Your task to perform on an android device: Do I have any events tomorrow? Image 0: 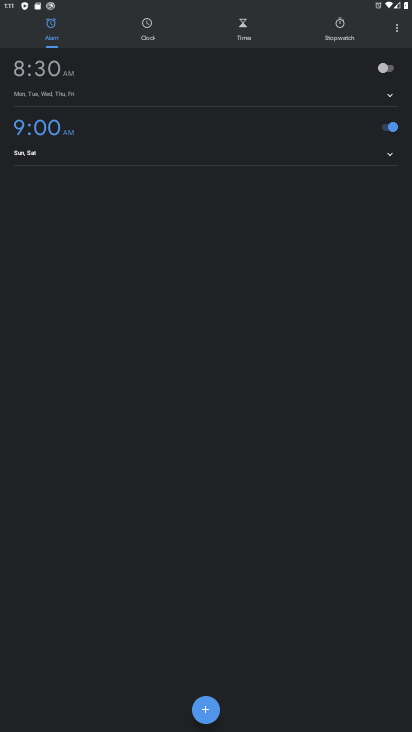
Step 0: press home button
Your task to perform on an android device: Do I have any events tomorrow? Image 1: 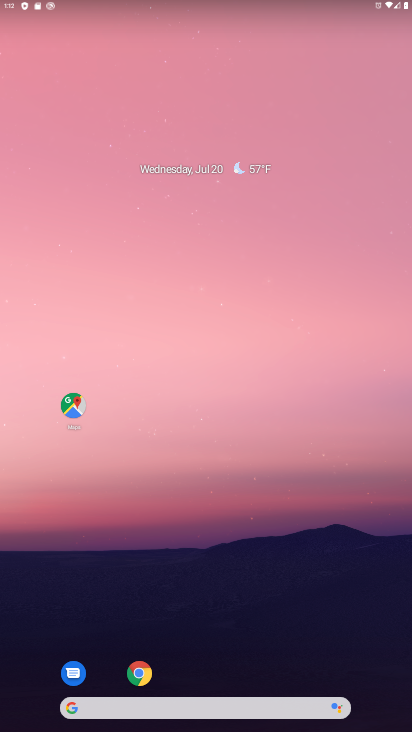
Step 1: drag from (220, 574) to (158, 15)
Your task to perform on an android device: Do I have any events tomorrow? Image 2: 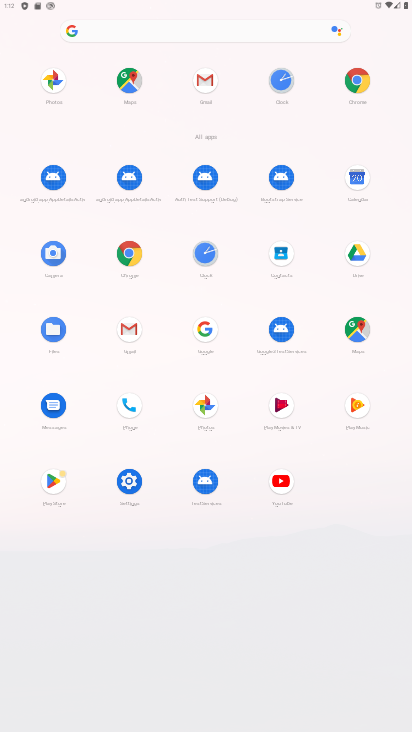
Step 2: click (363, 175)
Your task to perform on an android device: Do I have any events tomorrow? Image 3: 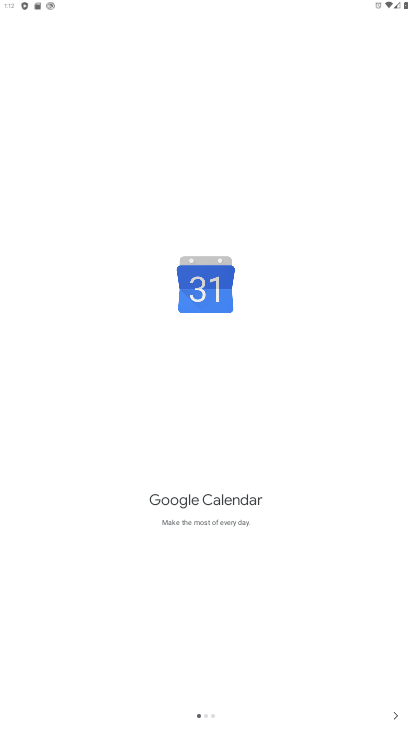
Step 3: click (396, 723)
Your task to perform on an android device: Do I have any events tomorrow? Image 4: 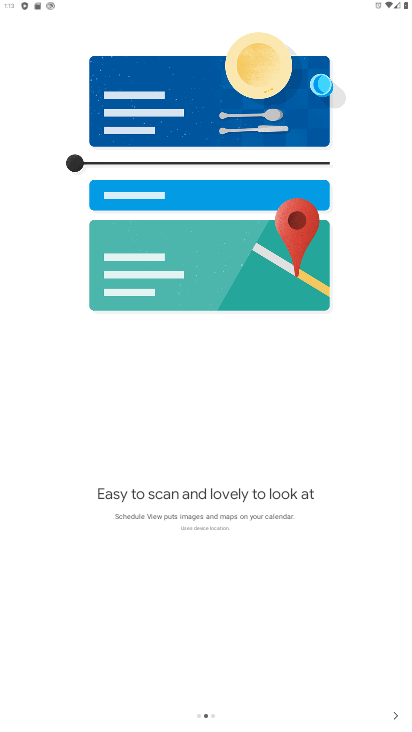
Step 4: click (396, 723)
Your task to perform on an android device: Do I have any events tomorrow? Image 5: 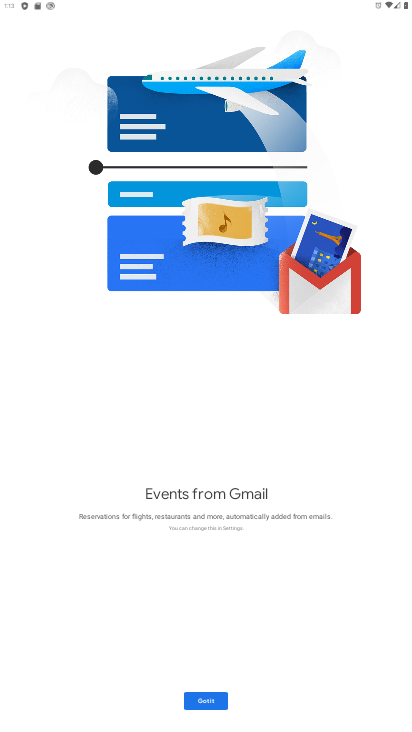
Step 5: click (396, 723)
Your task to perform on an android device: Do I have any events tomorrow? Image 6: 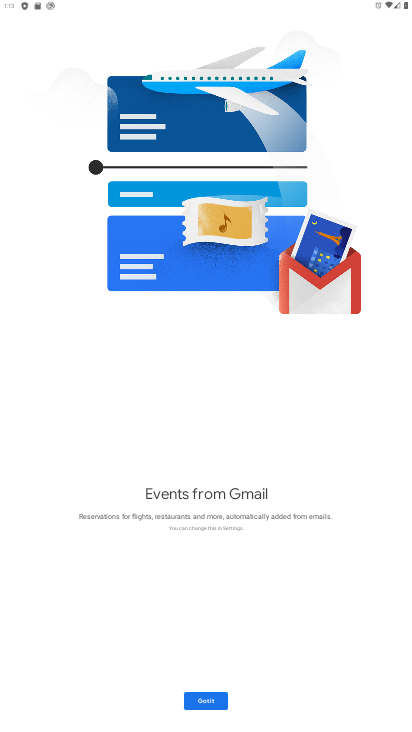
Step 6: click (208, 702)
Your task to perform on an android device: Do I have any events tomorrow? Image 7: 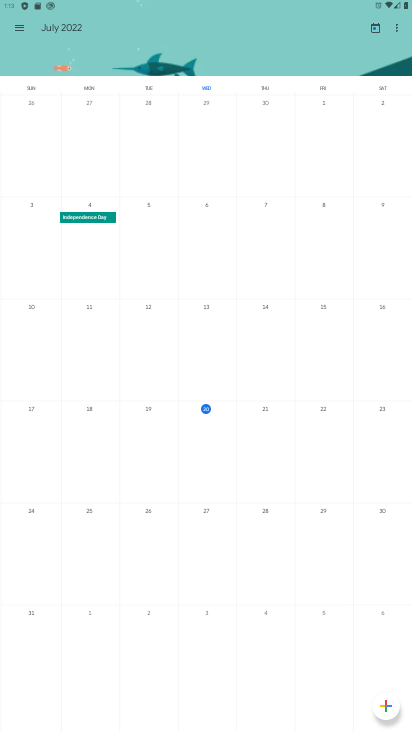
Step 7: click (20, 36)
Your task to perform on an android device: Do I have any events tomorrow? Image 8: 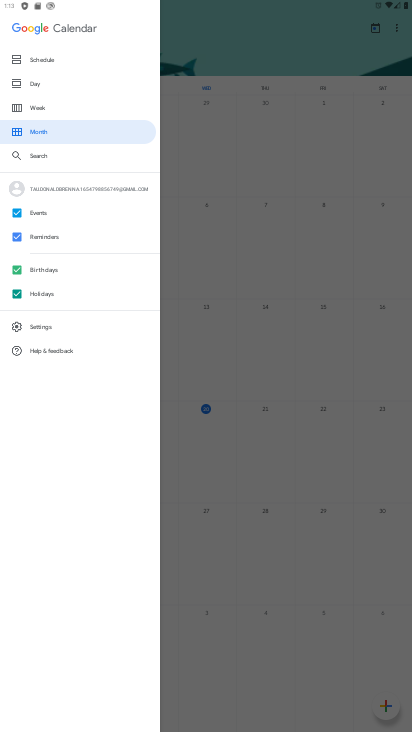
Step 8: click (48, 88)
Your task to perform on an android device: Do I have any events tomorrow? Image 9: 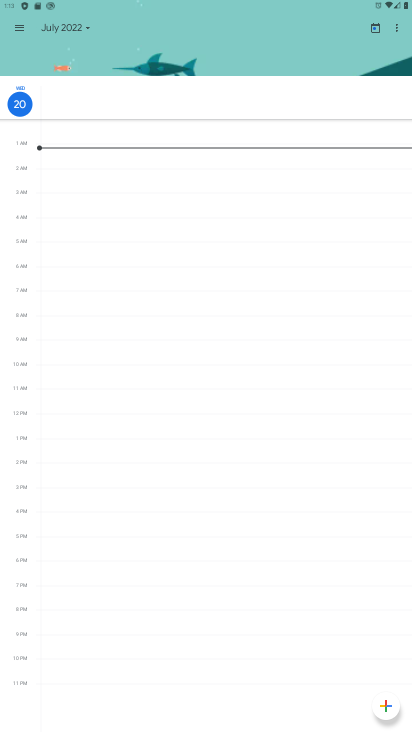
Step 9: click (76, 26)
Your task to perform on an android device: Do I have any events tomorrow? Image 10: 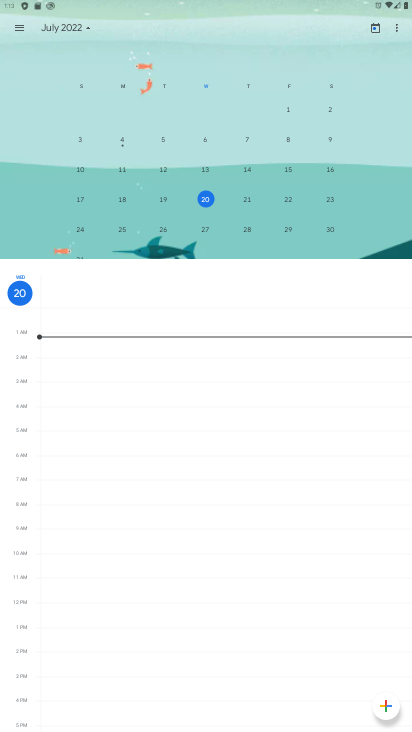
Step 10: click (248, 205)
Your task to perform on an android device: Do I have any events tomorrow? Image 11: 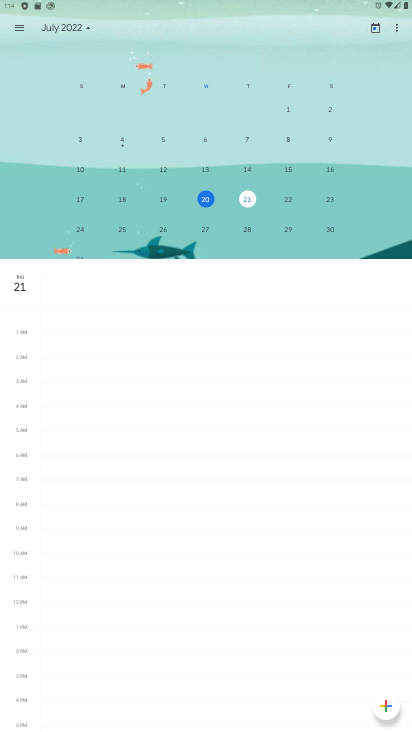
Step 11: task complete